Your task to perform on an android device: Open Yahoo.com Image 0: 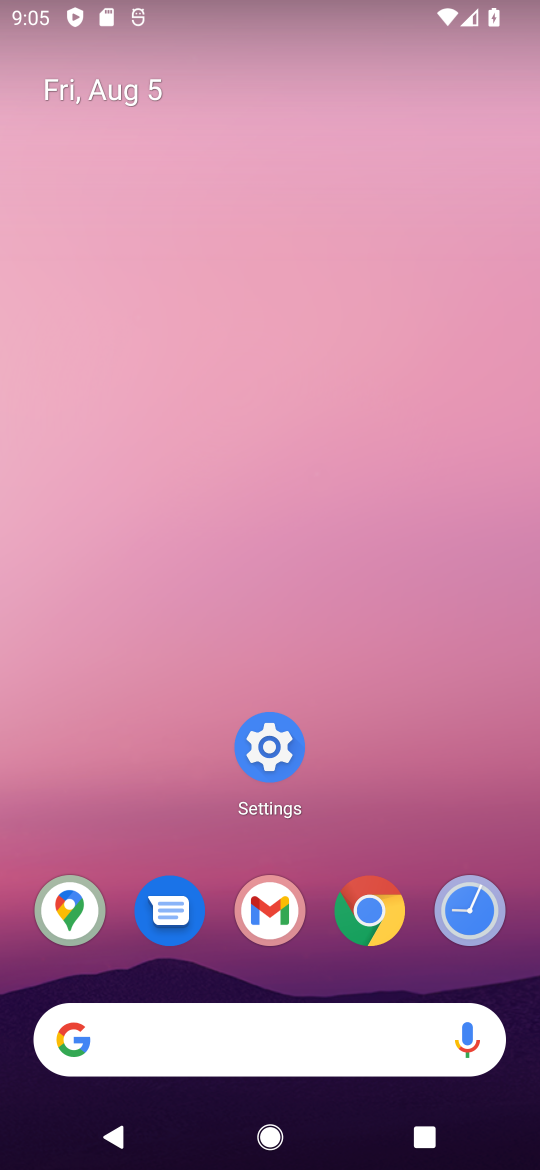
Step 0: click (360, 907)
Your task to perform on an android device: Open Yahoo.com Image 1: 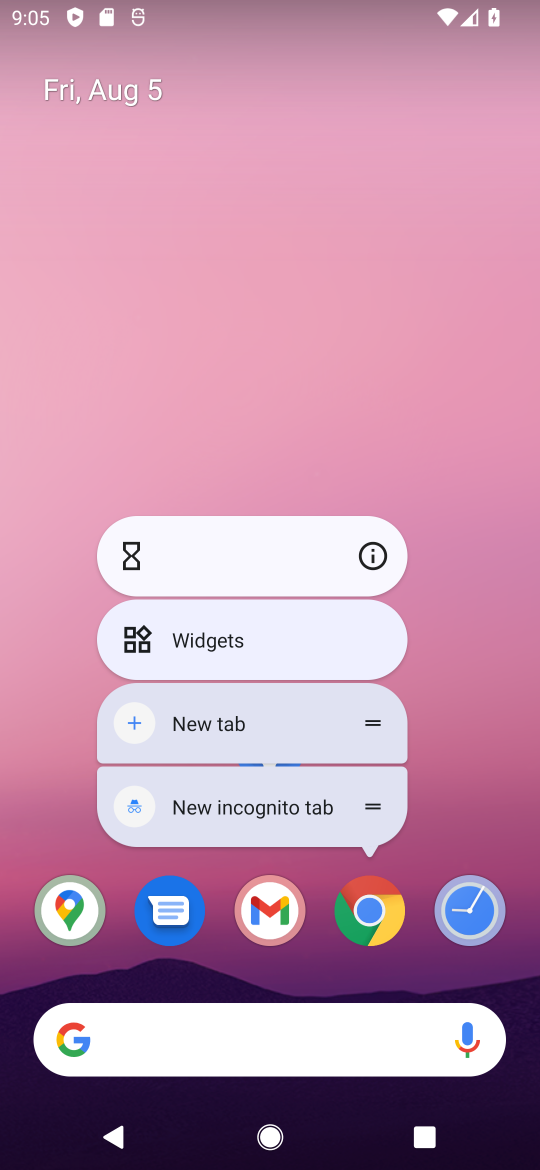
Step 1: click (360, 912)
Your task to perform on an android device: Open Yahoo.com Image 2: 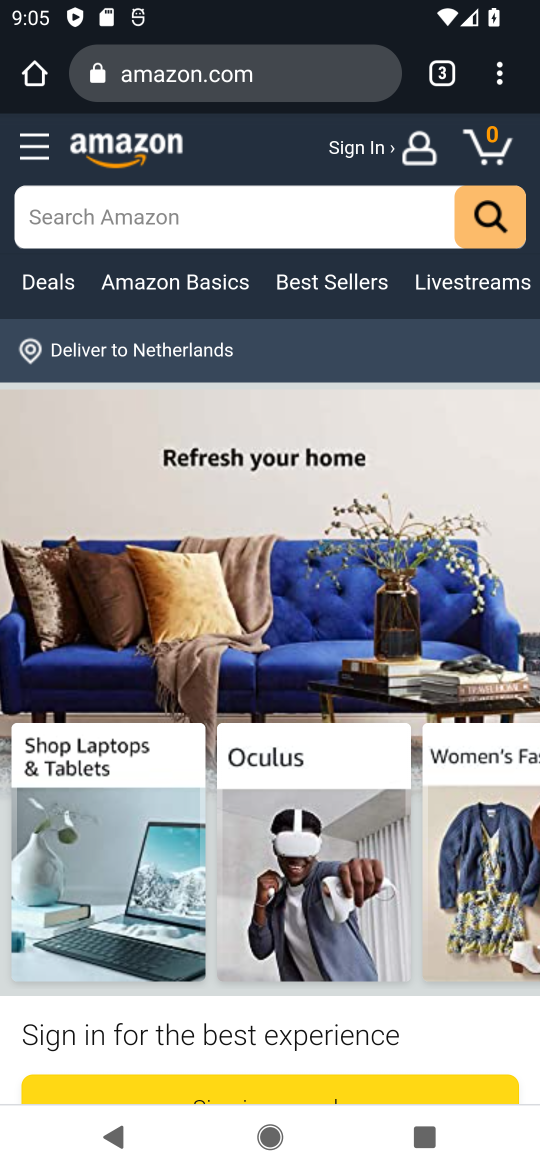
Step 2: drag from (500, 76) to (330, 243)
Your task to perform on an android device: Open Yahoo.com Image 3: 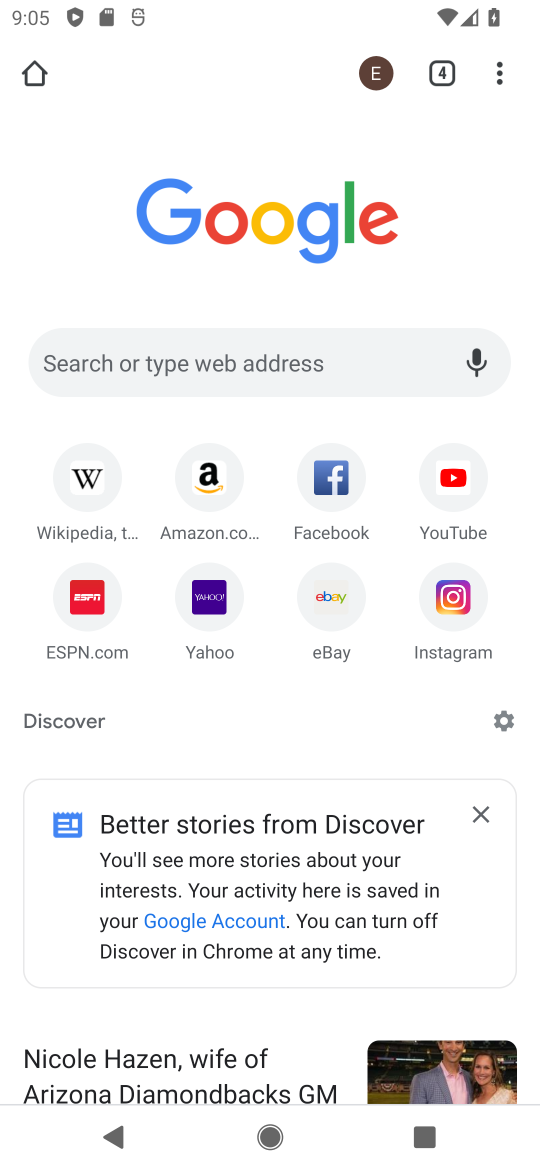
Step 3: click (220, 601)
Your task to perform on an android device: Open Yahoo.com Image 4: 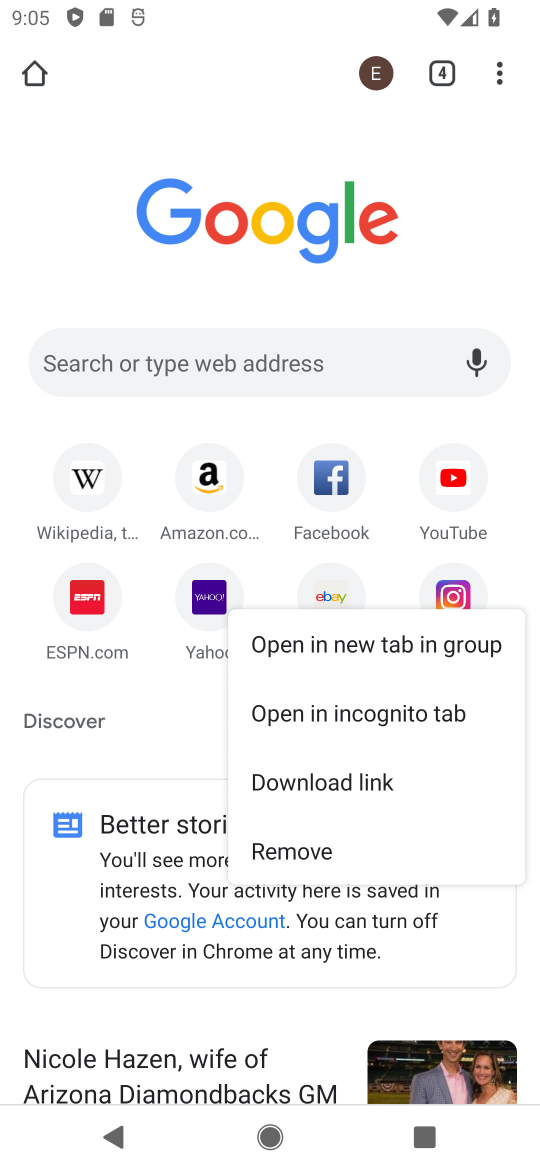
Step 4: click (216, 602)
Your task to perform on an android device: Open Yahoo.com Image 5: 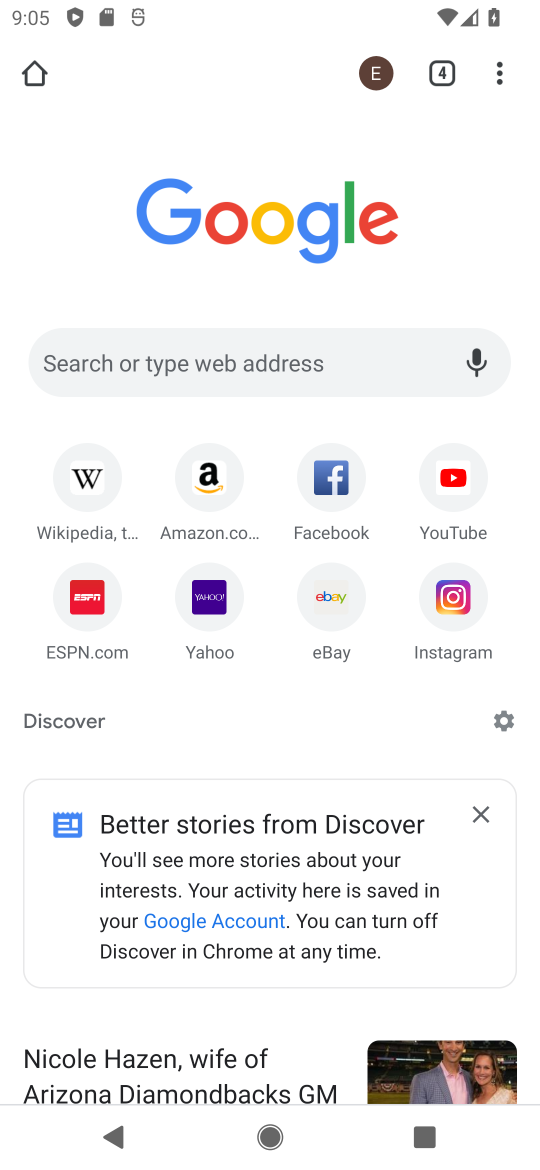
Step 5: click (216, 602)
Your task to perform on an android device: Open Yahoo.com Image 6: 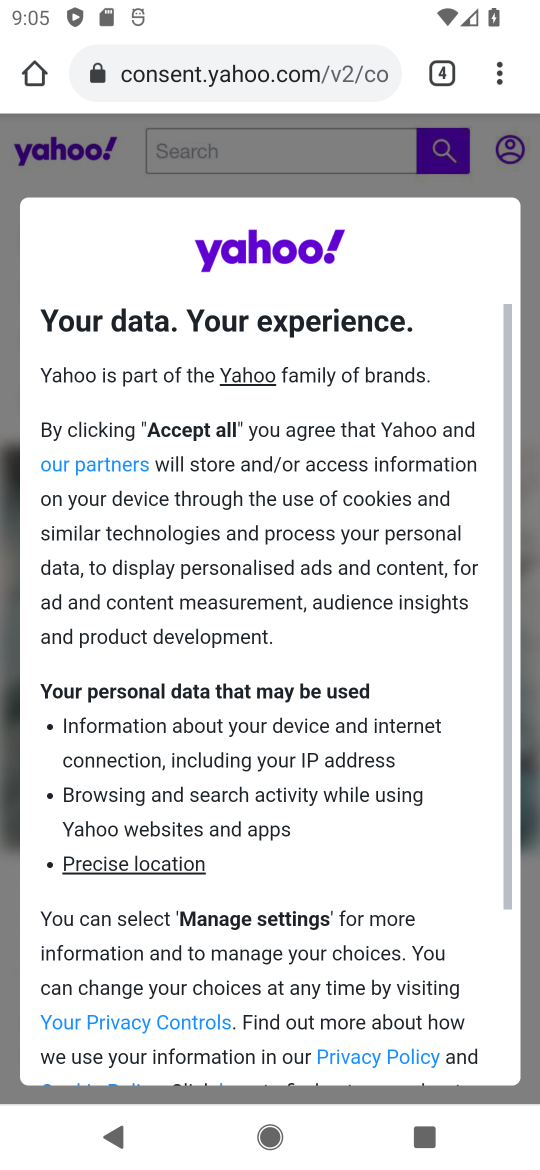
Step 6: drag from (218, 858) to (415, 212)
Your task to perform on an android device: Open Yahoo.com Image 7: 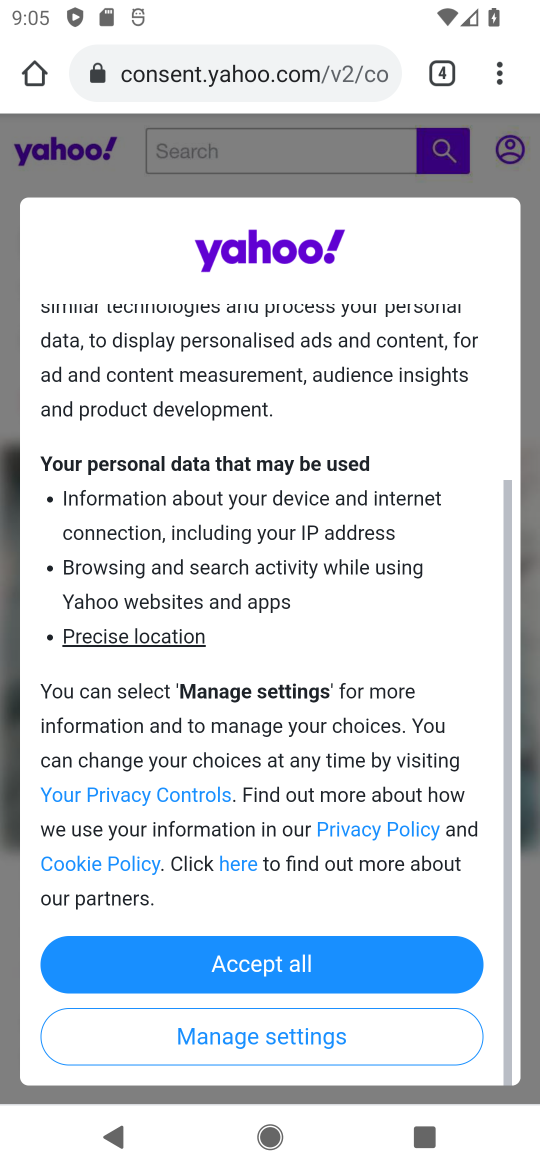
Step 7: click (273, 960)
Your task to perform on an android device: Open Yahoo.com Image 8: 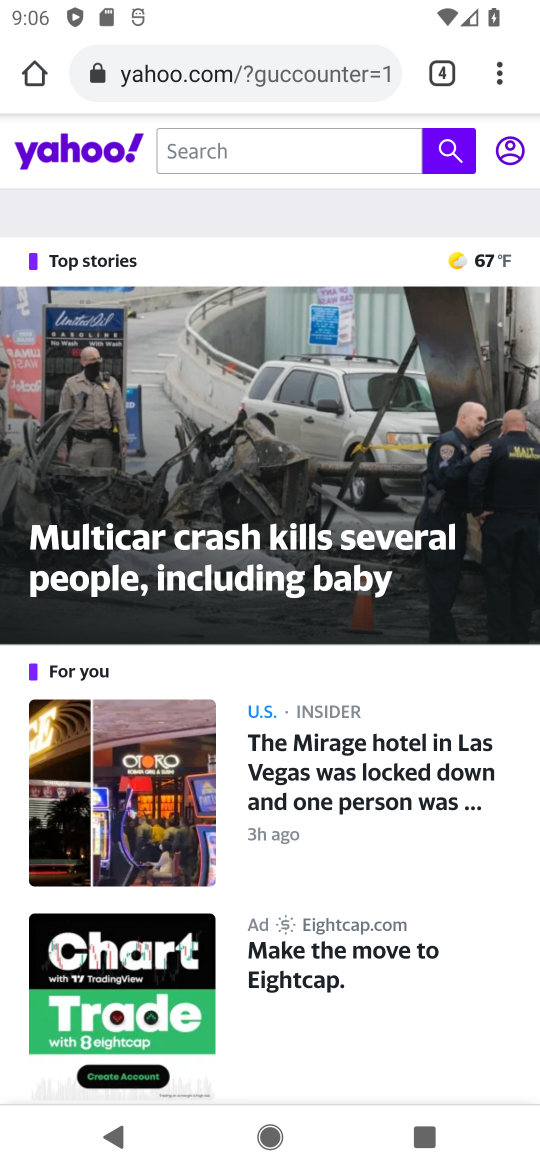
Step 8: task complete